Your task to perform on an android device: Open Google Chrome Image 0: 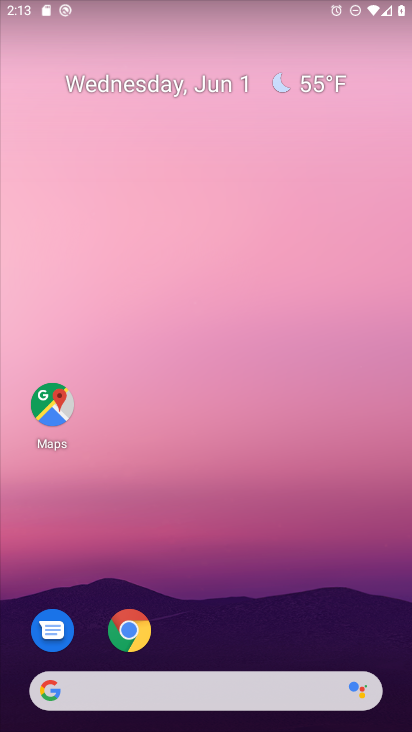
Step 0: drag from (140, 678) to (174, 15)
Your task to perform on an android device: Open Google Chrome Image 1: 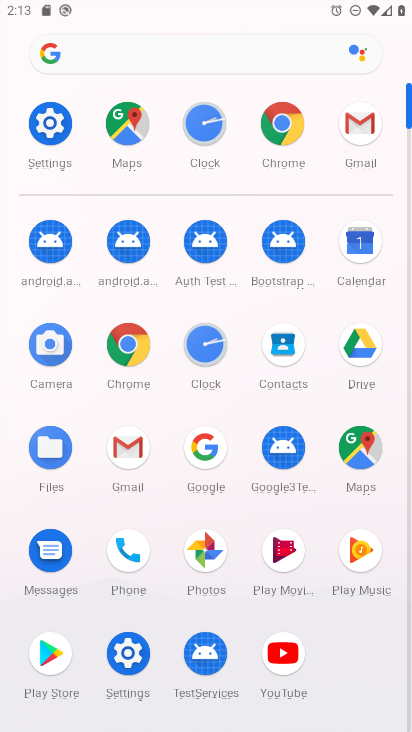
Step 1: click (131, 354)
Your task to perform on an android device: Open Google Chrome Image 2: 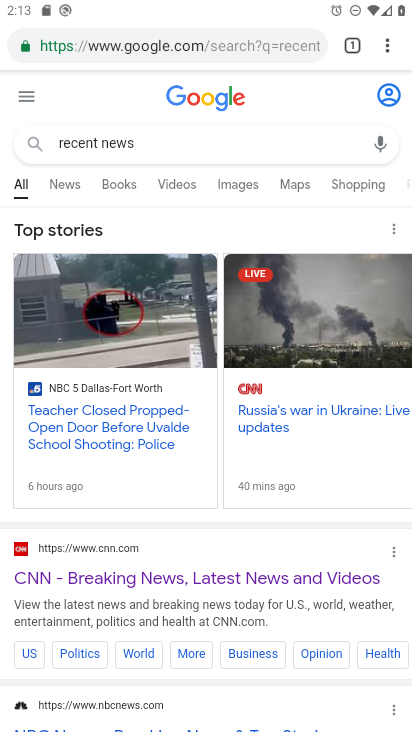
Step 2: task complete